Your task to perform on an android device: Search for vegetarian restaurants on Maps Image 0: 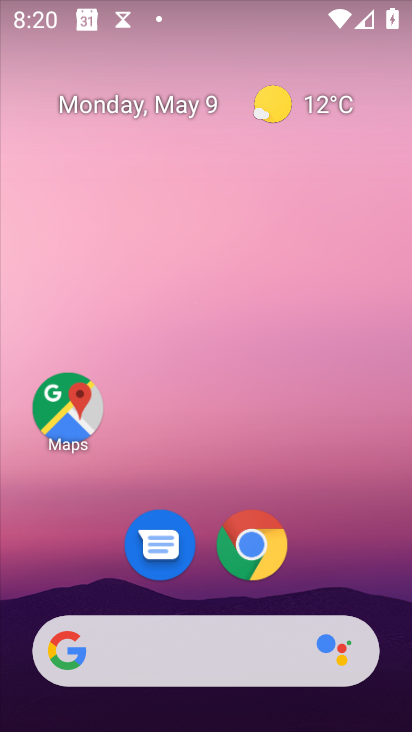
Step 0: drag from (213, 728) to (217, 132)
Your task to perform on an android device: Search for vegetarian restaurants on Maps Image 1: 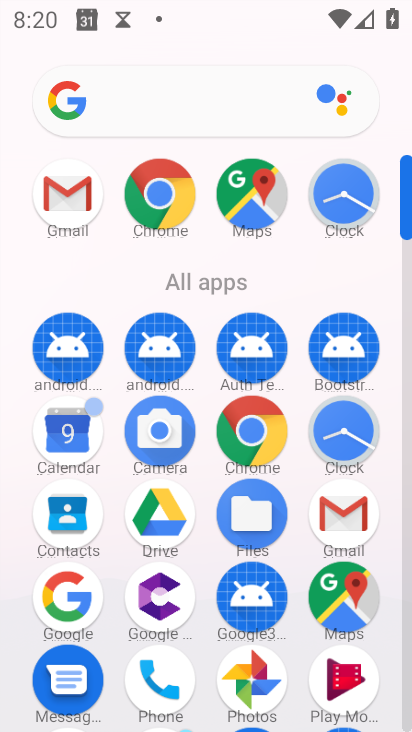
Step 1: click (344, 582)
Your task to perform on an android device: Search for vegetarian restaurants on Maps Image 2: 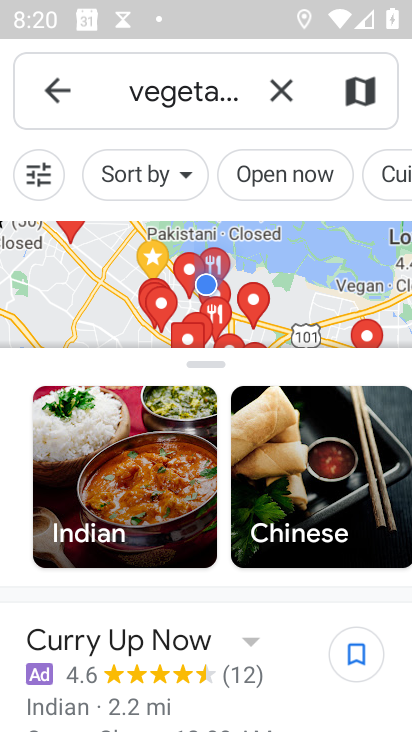
Step 2: task complete